Your task to perform on an android device: change the clock display to analog Image 0: 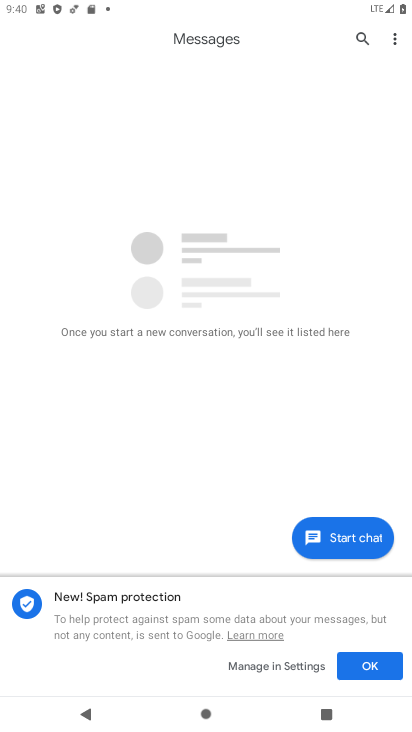
Step 0: press home button
Your task to perform on an android device: change the clock display to analog Image 1: 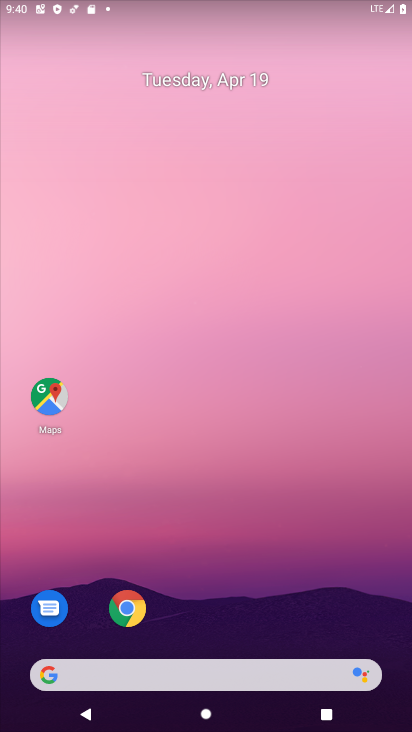
Step 1: drag from (309, 541) to (271, 92)
Your task to perform on an android device: change the clock display to analog Image 2: 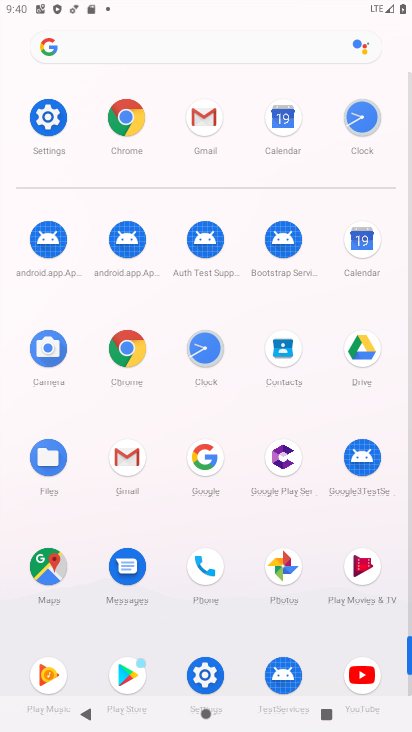
Step 2: click (203, 347)
Your task to perform on an android device: change the clock display to analog Image 3: 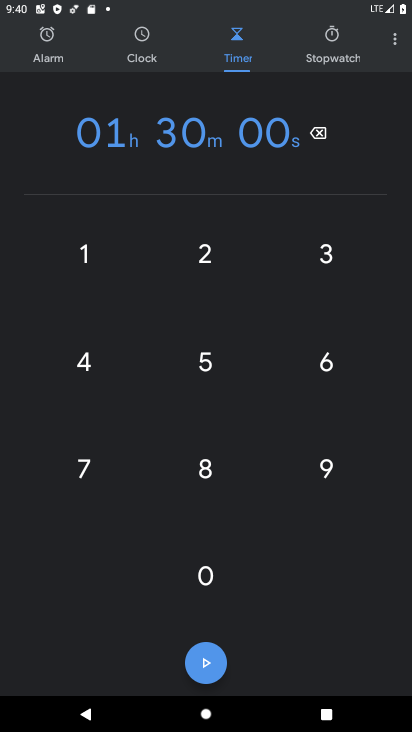
Step 3: click (393, 43)
Your task to perform on an android device: change the clock display to analog Image 4: 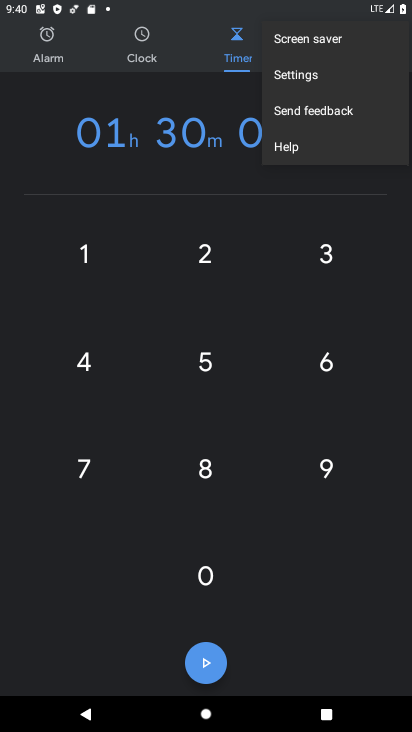
Step 4: click (288, 77)
Your task to perform on an android device: change the clock display to analog Image 5: 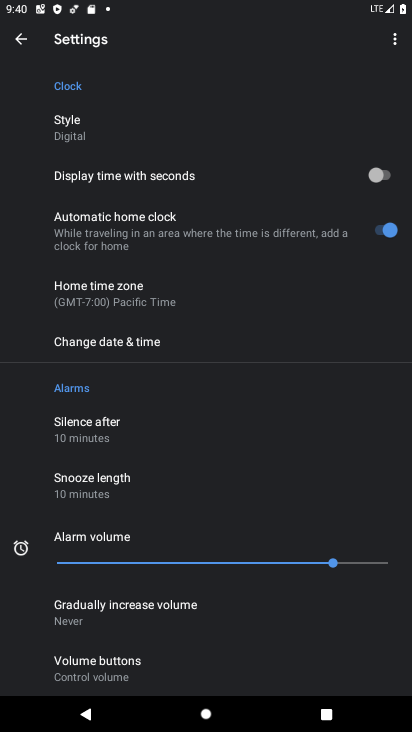
Step 5: click (52, 125)
Your task to perform on an android device: change the clock display to analog Image 6: 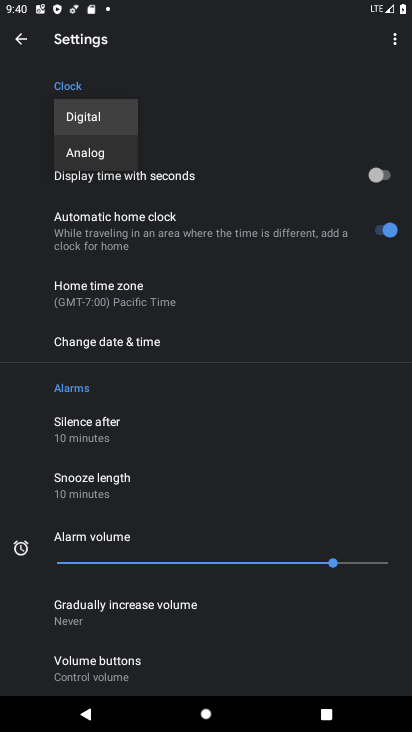
Step 6: click (86, 154)
Your task to perform on an android device: change the clock display to analog Image 7: 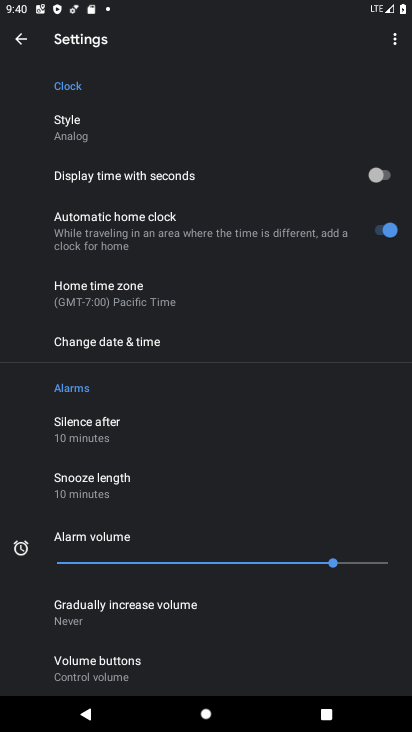
Step 7: task complete